Your task to perform on an android device: check google app version Image 0: 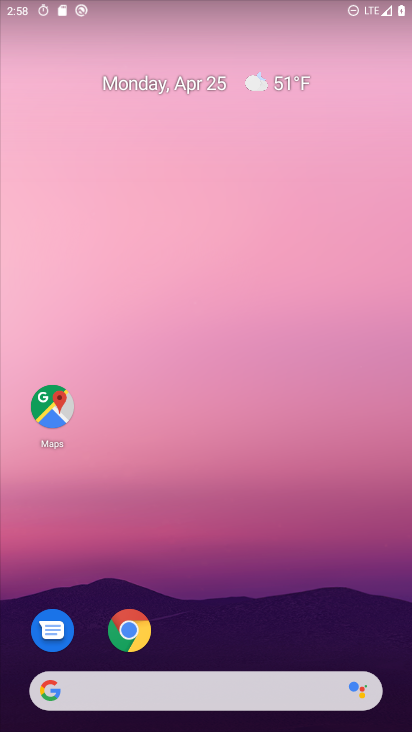
Step 0: drag from (189, 610) to (247, 203)
Your task to perform on an android device: check google app version Image 1: 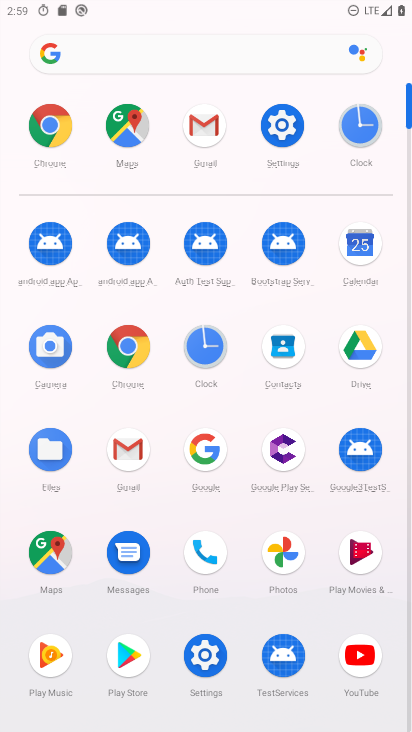
Step 1: click (204, 438)
Your task to perform on an android device: check google app version Image 2: 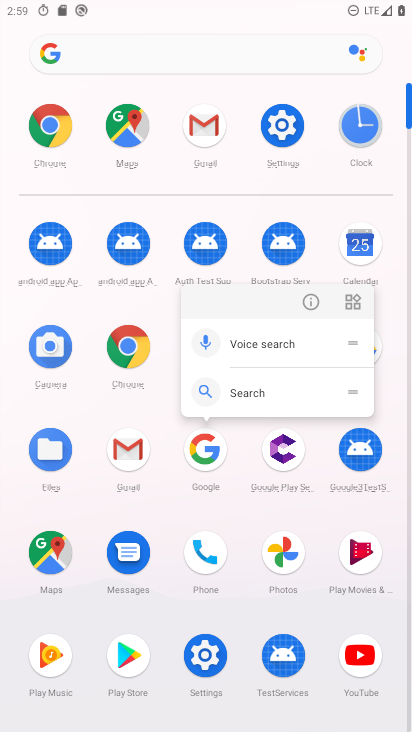
Step 2: click (302, 298)
Your task to perform on an android device: check google app version Image 3: 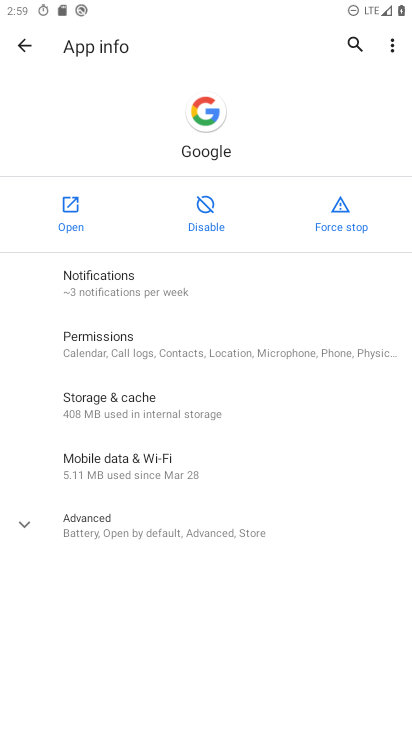
Step 3: click (72, 207)
Your task to perform on an android device: check google app version Image 4: 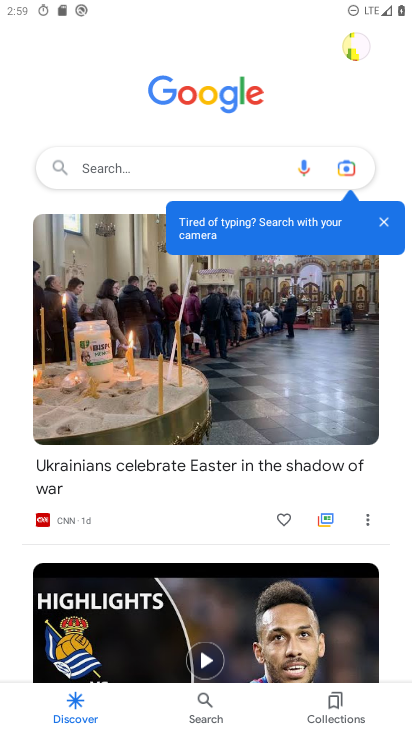
Step 4: drag from (197, 404) to (308, 728)
Your task to perform on an android device: check google app version Image 5: 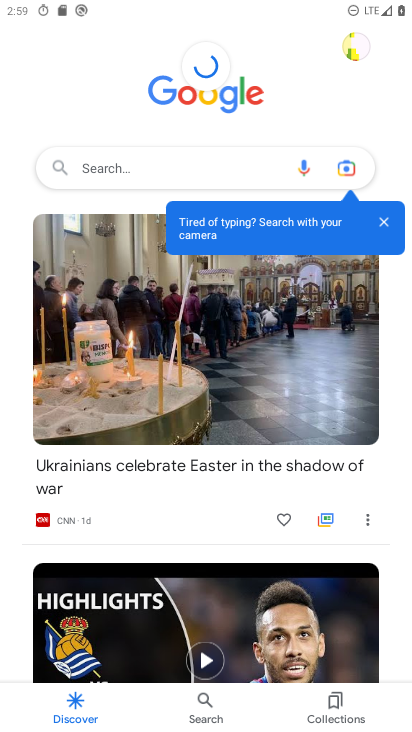
Step 5: drag from (276, 621) to (335, 225)
Your task to perform on an android device: check google app version Image 6: 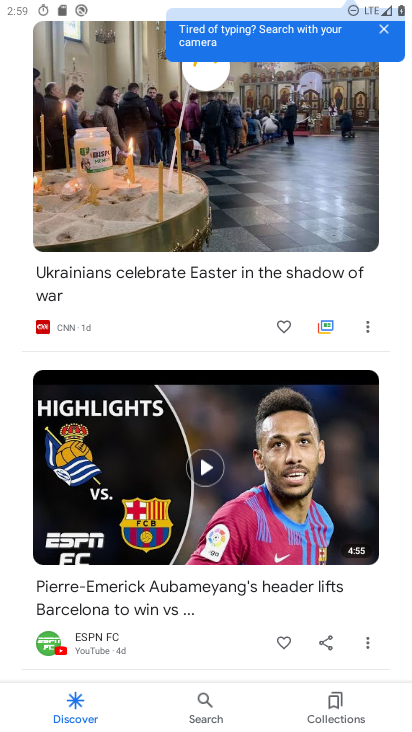
Step 6: drag from (212, 397) to (286, 199)
Your task to perform on an android device: check google app version Image 7: 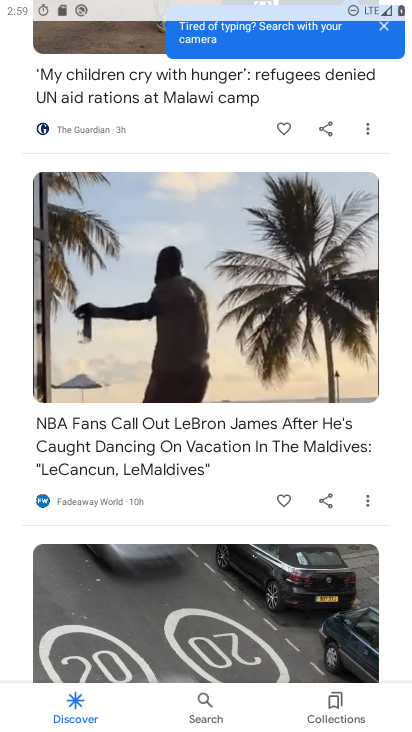
Step 7: drag from (287, 274) to (269, 730)
Your task to perform on an android device: check google app version Image 8: 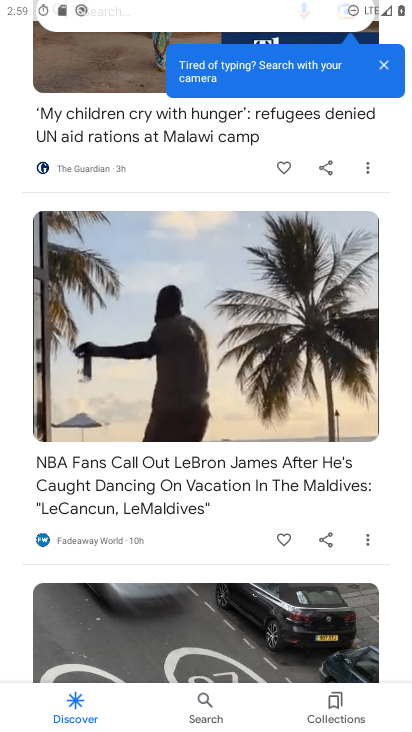
Step 8: drag from (268, 181) to (372, 661)
Your task to perform on an android device: check google app version Image 9: 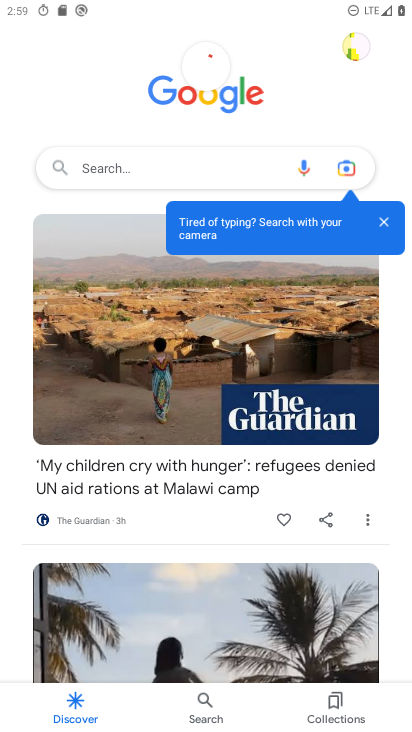
Step 9: drag from (365, 50) to (311, 605)
Your task to perform on an android device: check google app version Image 10: 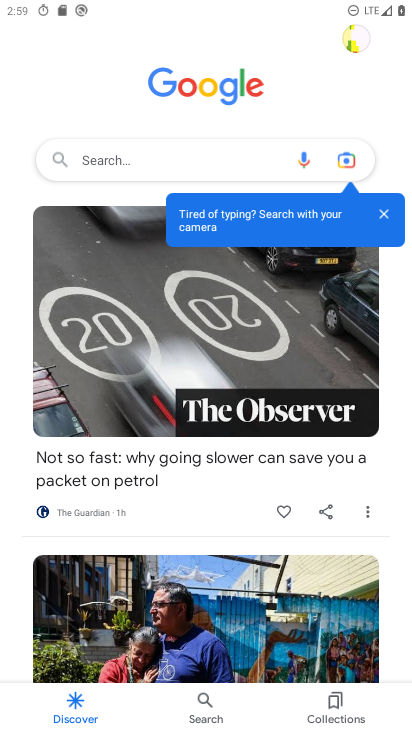
Step 10: click (388, 217)
Your task to perform on an android device: check google app version Image 11: 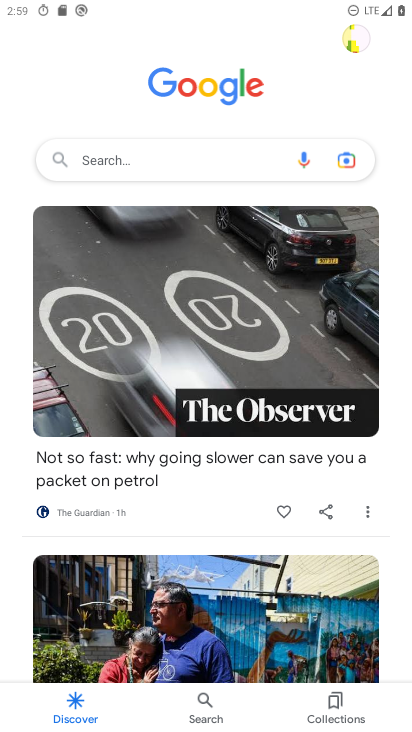
Step 11: drag from (307, 464) to (307, 251)
Your task to perform on an android device: check google app version Image 12: 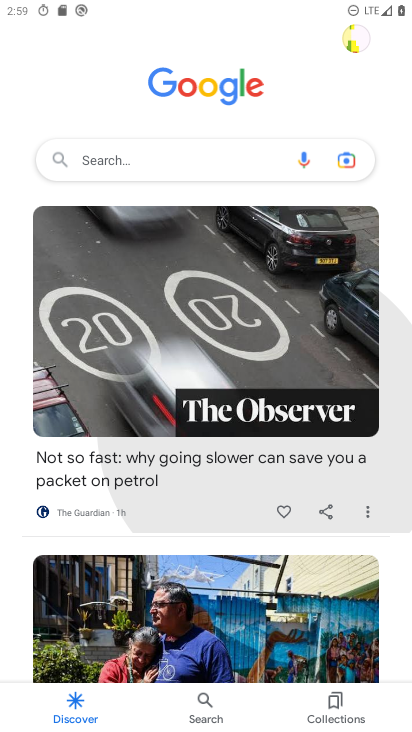
Step 12: drag from (317, 227) to (248, 665)
Your task to perform on an android device: check google app version Image 13: 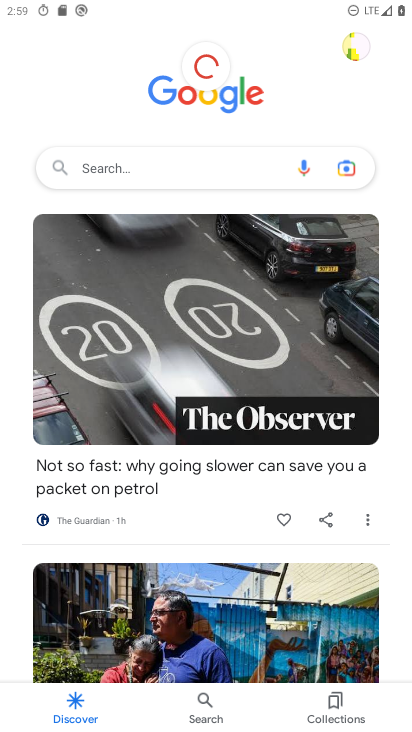
Step 13: drag from (357, 51) to (347, 308)
Your task to perform on an android device: check google app version Image 14: 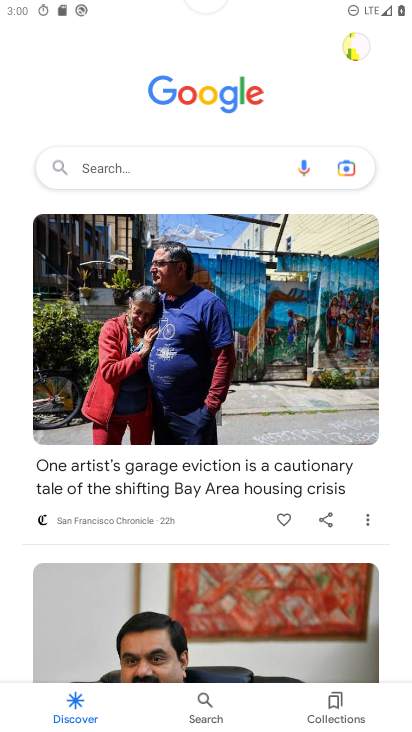
Step 14: click (359, 41)
Your task to perform on an android device: check google app version Image 15: 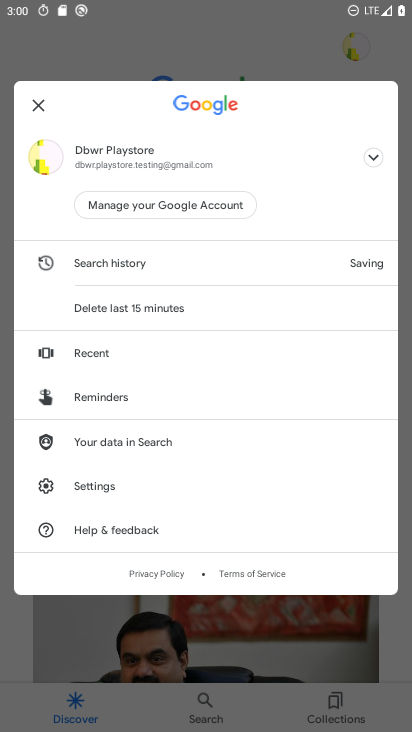
Step 15: click (106, 477)
Your task to perform on an android device: check google app version Image 16: 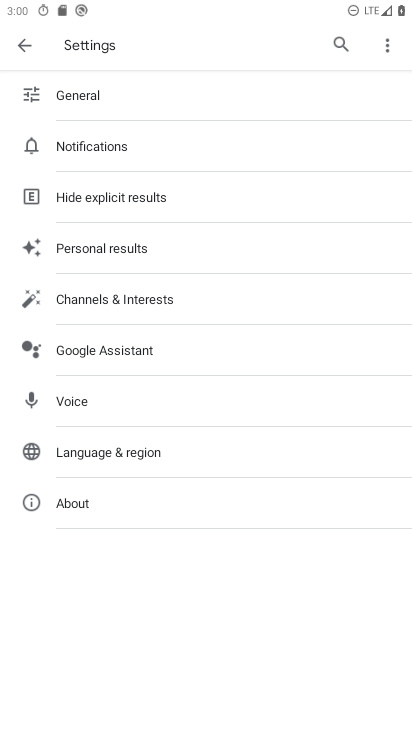
Step 16: click (96, 492)
Your task to perform on an android device: check google app version Image 17: 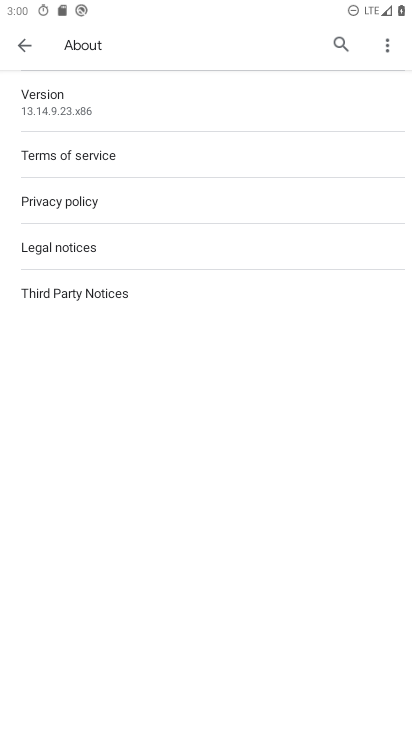
Step 17: click (188, 95)
Your task to perform on an android device: check google app version Image 18: 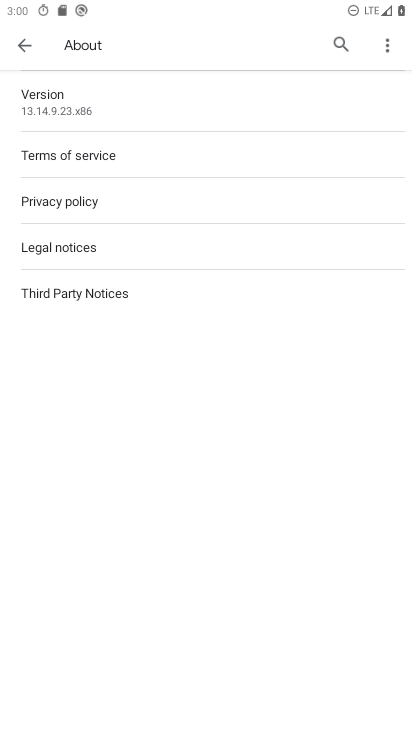
Step 18: task complete